Your task to perform on an android device: turn off picture-in-picture Image 0: 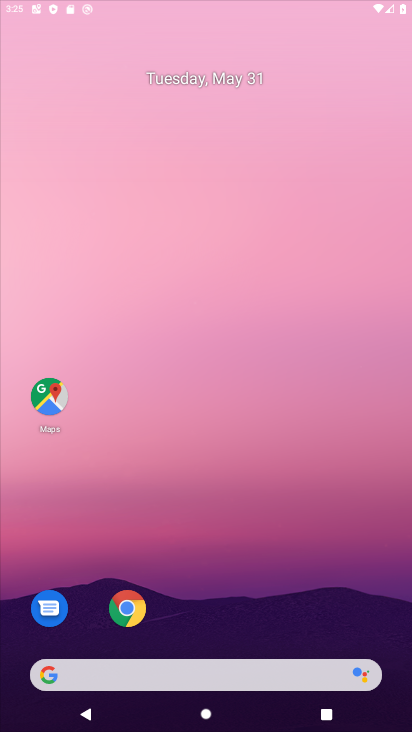
Step 0: drag from (214, 433) to (239, 225)
Your task to perform on an android device: turn off picture-in-picture Image 1: 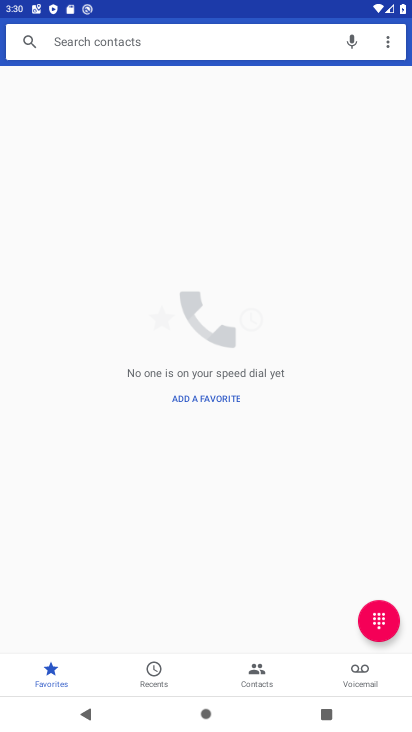
Step 1: press home button
Your task to perform on an android device: turn off picture-in-picture Image 2: 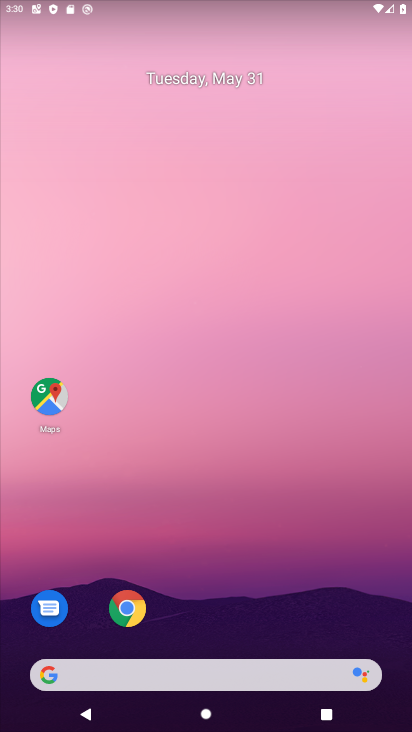
Step 2: click (128, 610)
Your task to perform on an android device: turn off picture-in-picture Image 3: 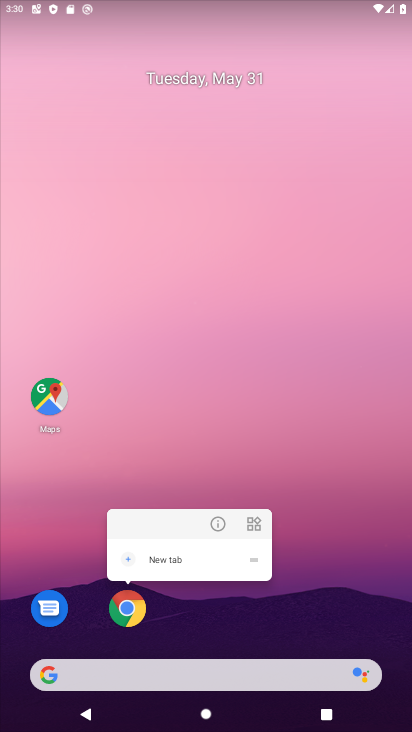
Step 3: click (222, 521)
Your task to perform on an android device: turn off picture-in-picture Image 4: 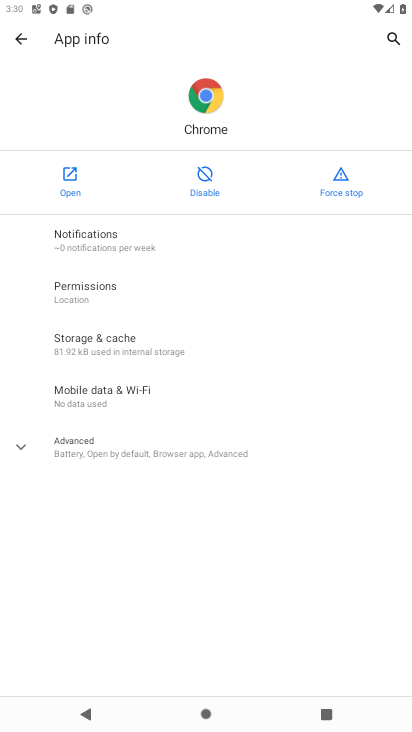
Step 4: click (106, 246)
Your task to perform on an android device: turn off picture-in-picture Image 5: 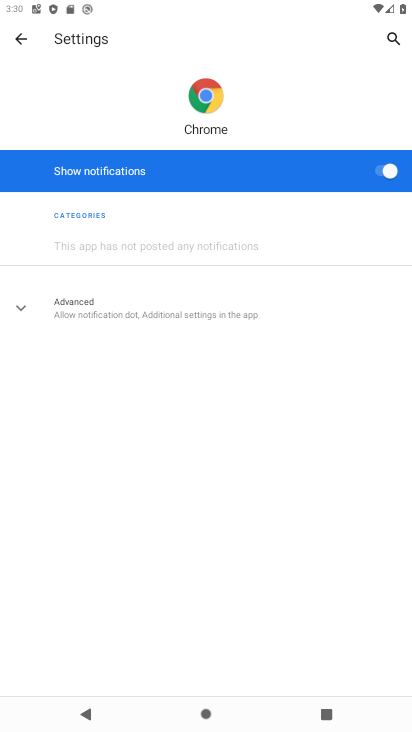
Step 5: press back button
Your task to perform on an android device: turn off picture-in-picture Image 6: 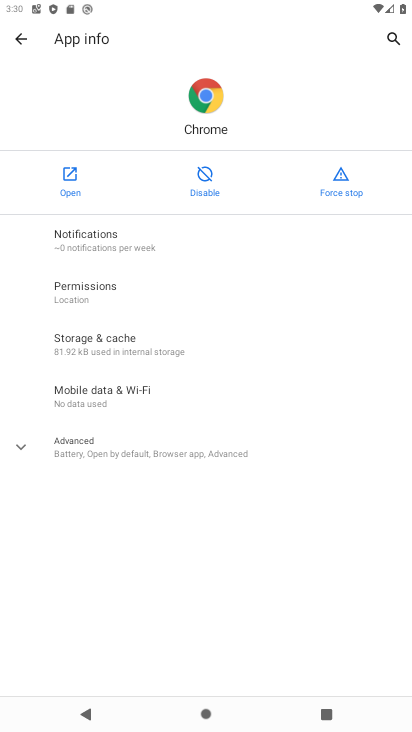
Step 6: click (128, 446)
Your task to perform on an android device: turn off picture-in-picture Image 7: 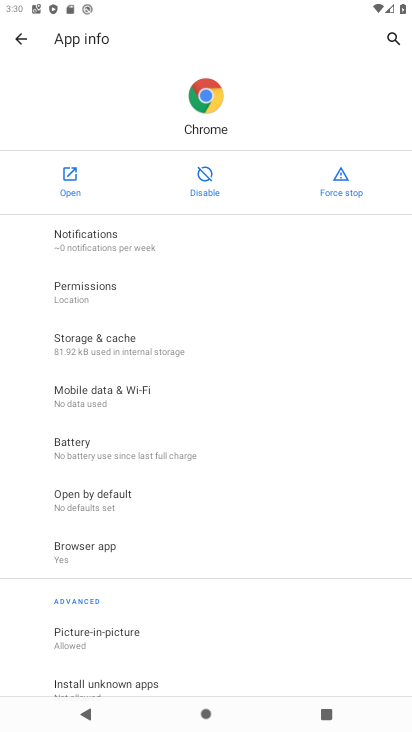
Step 7: click (118, 635)
Your task to perform on an android device: turn off picture-in-picture Image 8: 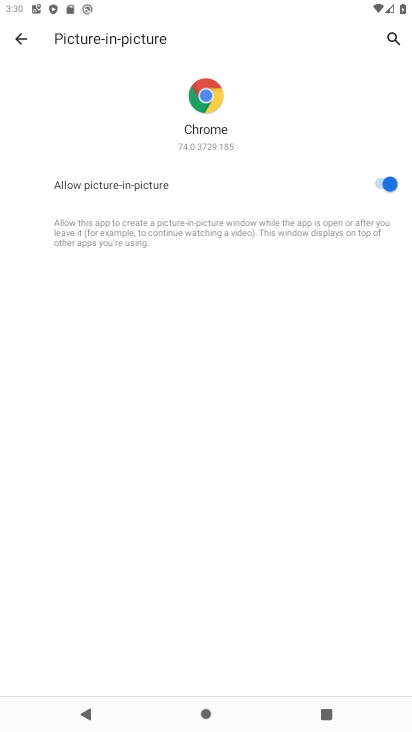
Step 8: click (378, 182)
Your task to perform on an android device: turn off picture-in-picture Image 9: 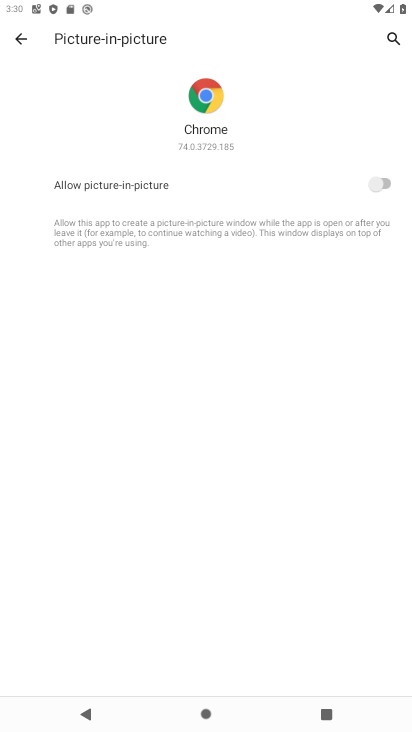
Step 9: task complete